Your task to perform on an android device: open app "PlayWell" (install if not already installed) and enter user name: "metric@gmail.com" and password: "bumblebee" Image 0: 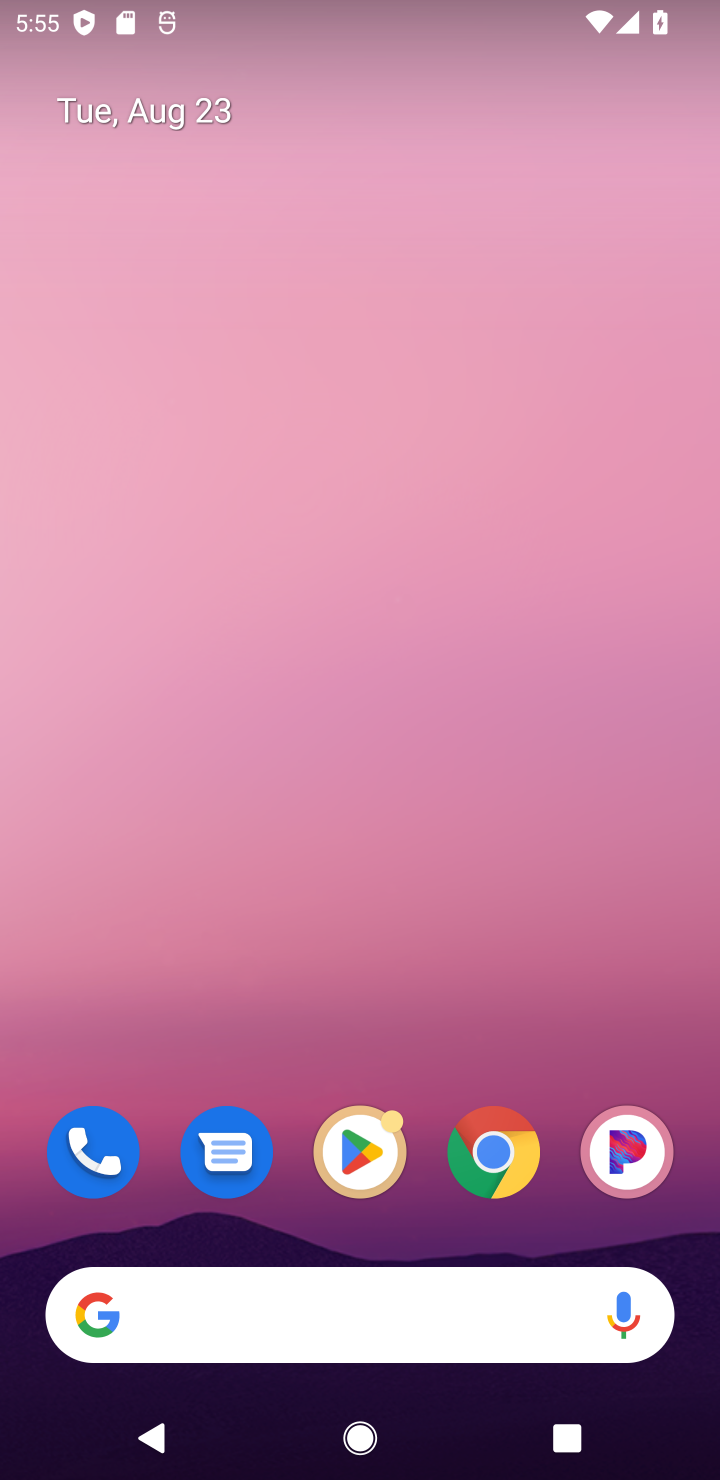
Step 0: click (367, 1132)
Your task to perform on an android device: open app "PlayWell" (install if not already installed) and enter user name: "metric@gmail.com" and password: "bumblebee" Image 1: 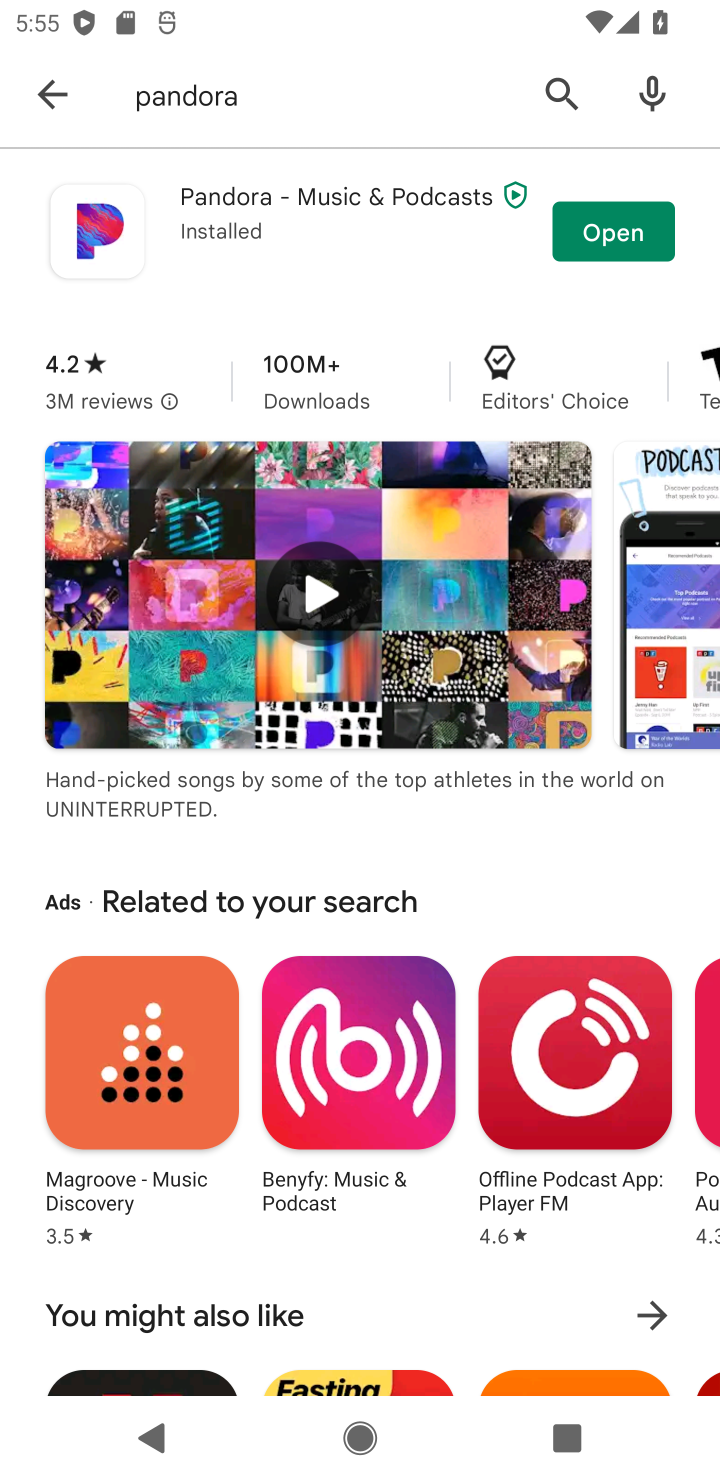
Step 1: click (574, 86)
Your task to perform on an android device: open app "PlayWell" (install if not already installed) and enter user name: "metric@gmail.com" and password: "bumblebee" Image 2: 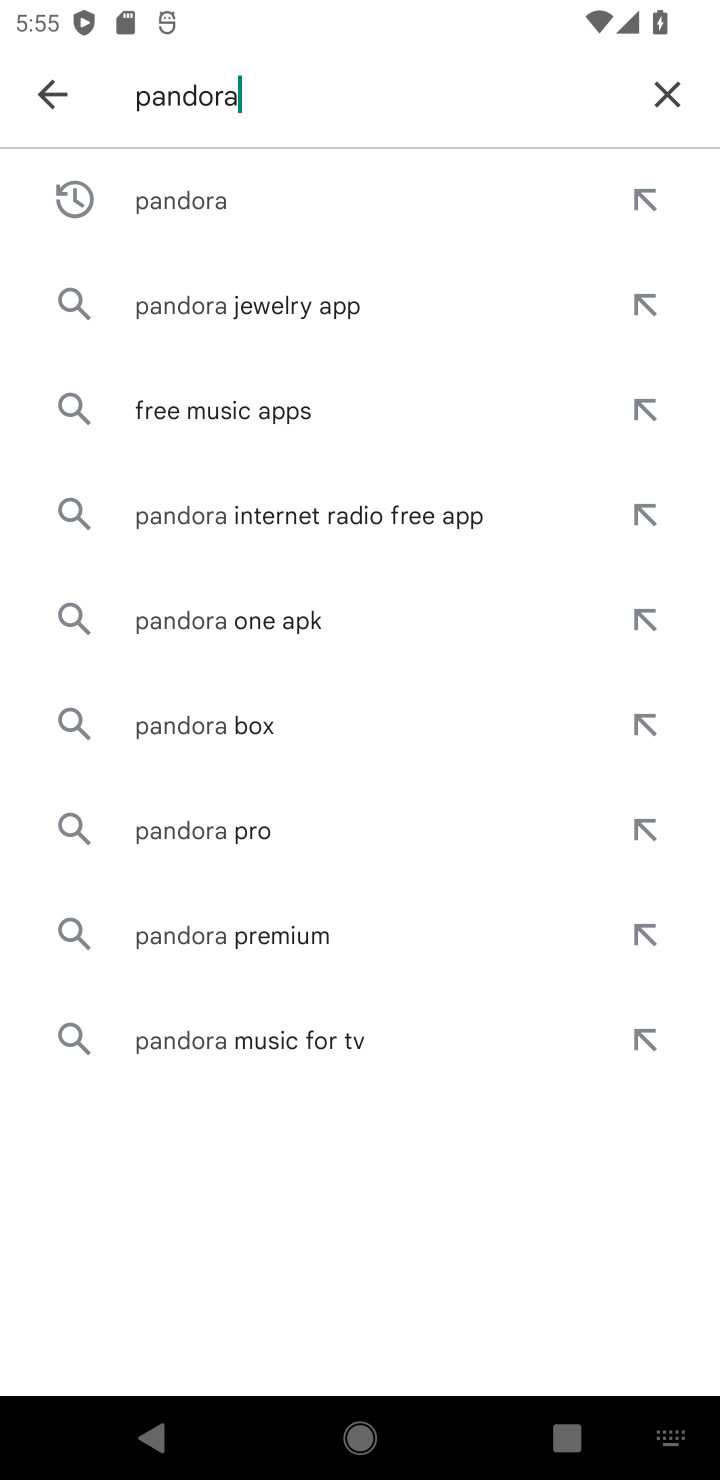
Step 2: click (673, 97)
Your task to perform on an android device: open app "PlayWell" (install if not already installed) and enter user name: "metric@gmail.com" and password: "bumblebee" Image 3: 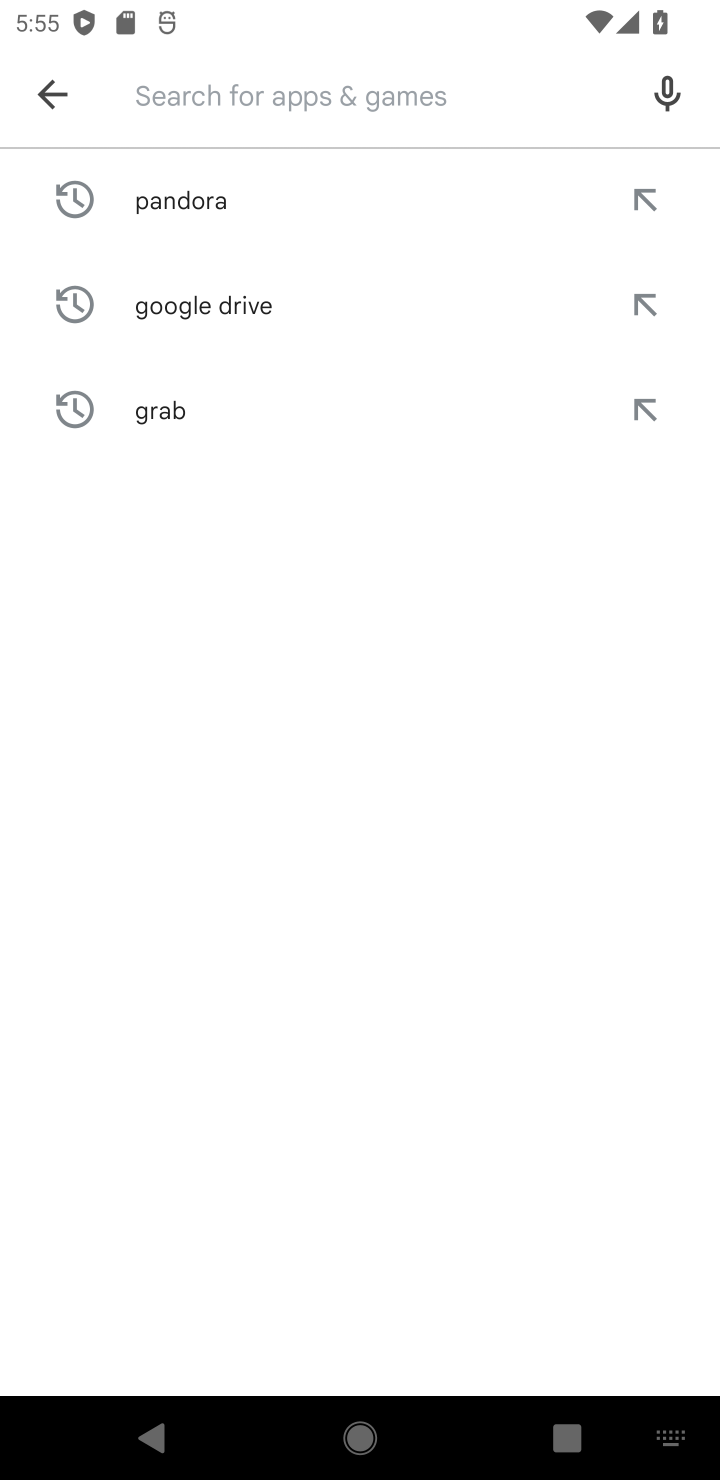
Step 3: type "playwell"
Your task to perform on an android device: open app "PlayWell" (install if not already installed) and enter user name: "metric@gmail.com" and password: "bumblebee" Image 4: 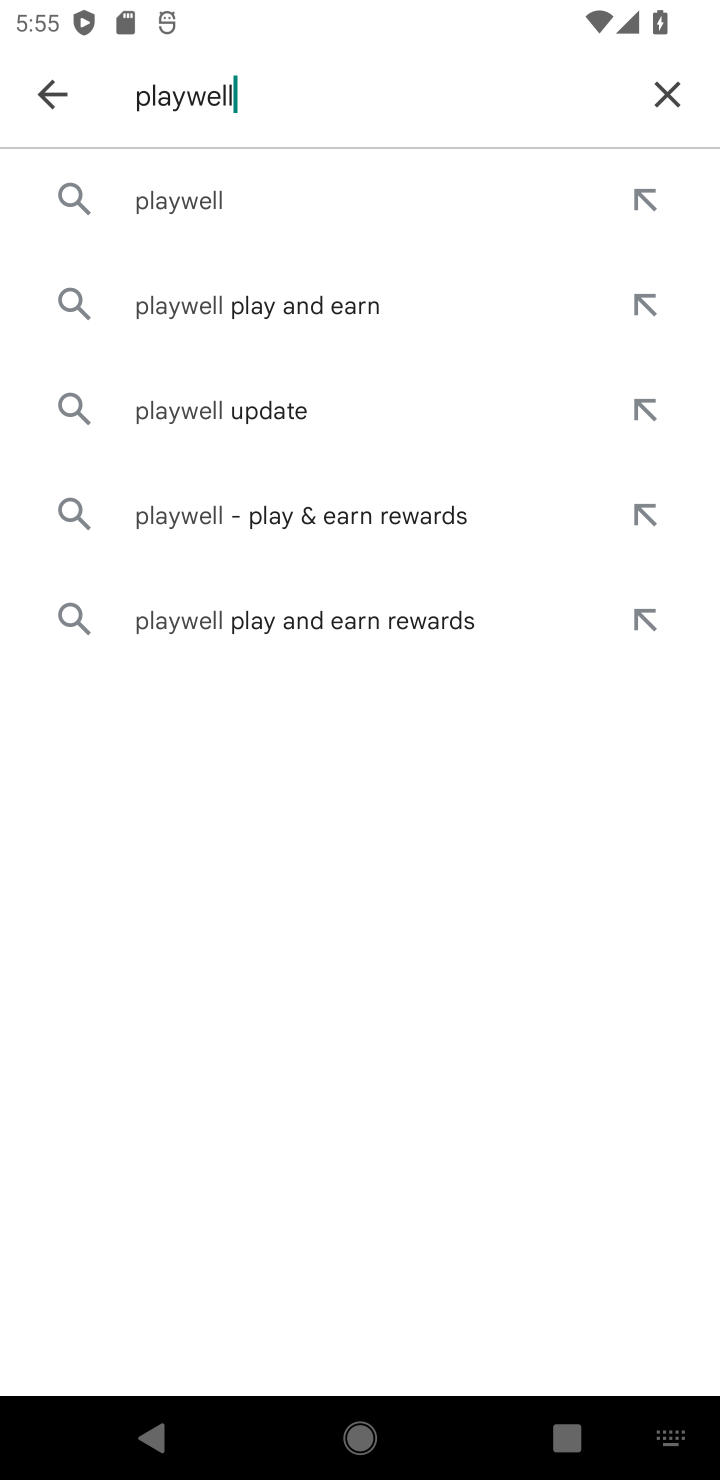
Step 4: click (228, 222)
Your task to perform on an android device: open app "PlayWell" (install if not already installed) and enter user name: "metric@gmail.com" and password: "bumblebee" Image 5: 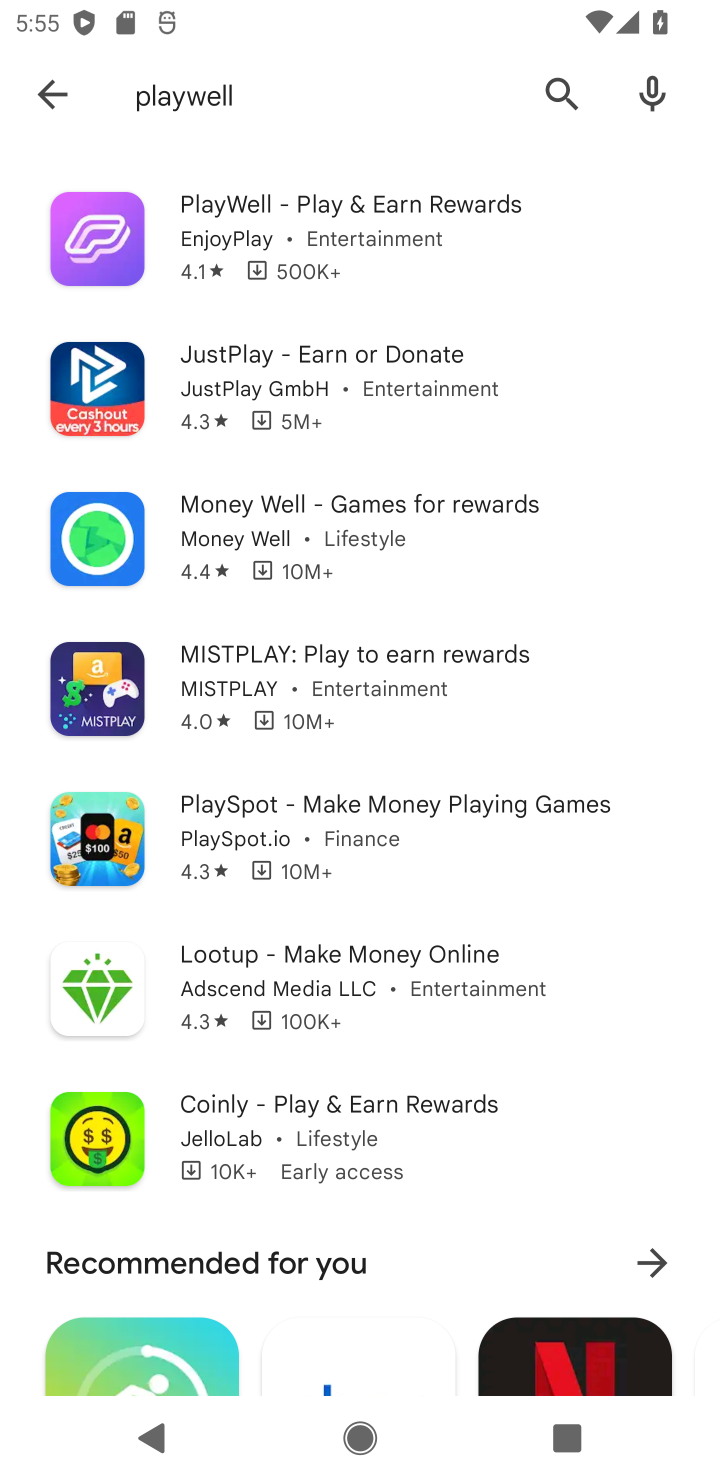
Step 5: click (325, 221)
Your task to perform on an android device: open app "PlayWell" (install if not already installed) and enter user name: "metric@gmail.com" and password: "bumblebee" Image 6: 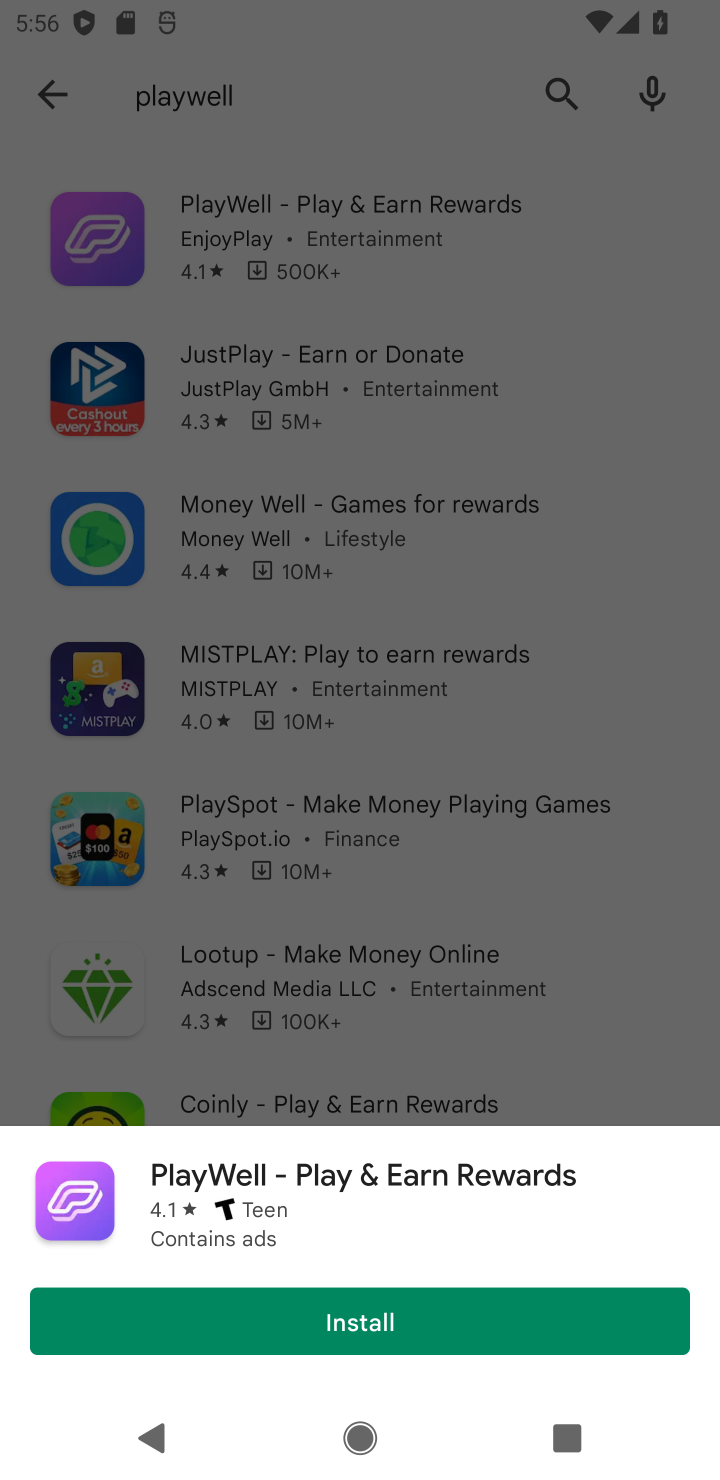
Step 6: click (325, 221)
Your task to perform on an android device: open app "PlayWell" (install if not already installed) and enter user name: "metric@gmail.com" and password: "bumblebee" Image 7: 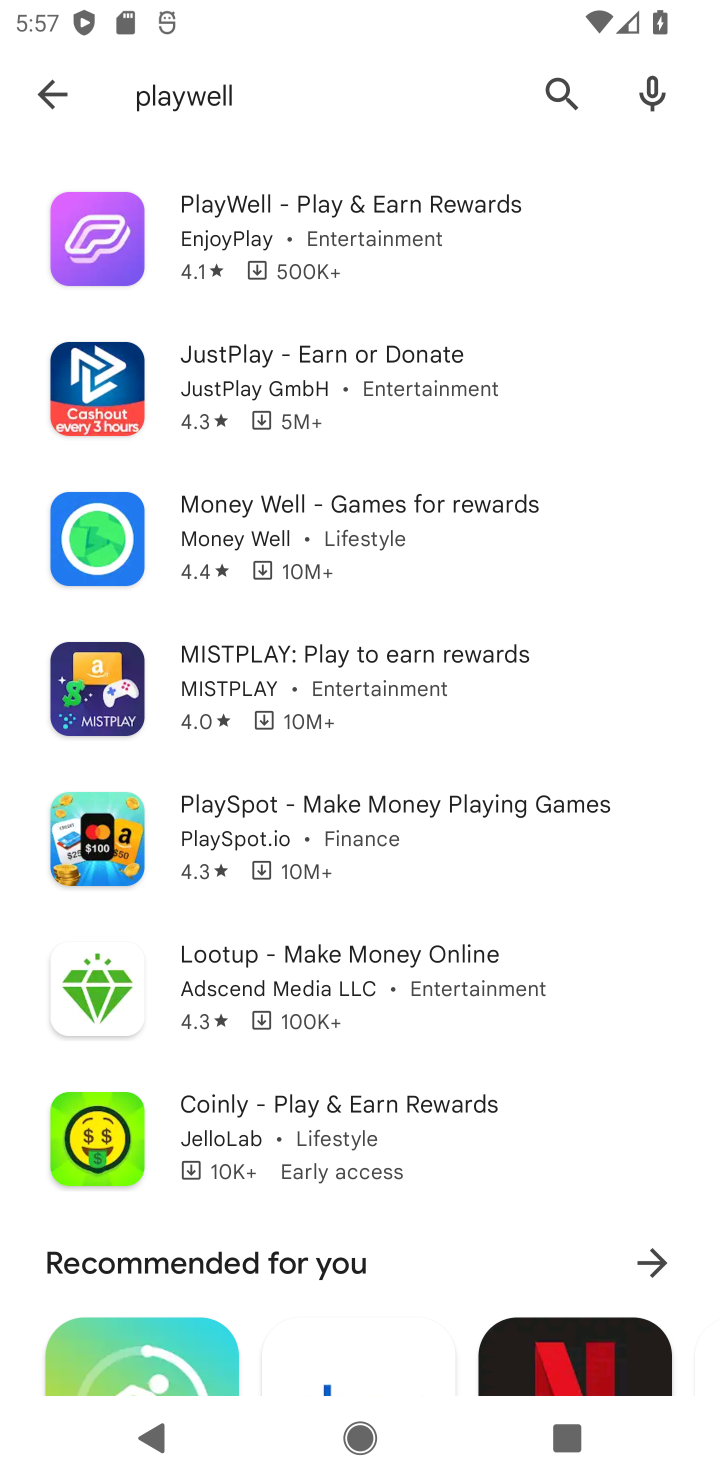
Step 7: click (346, 218)
Your task to perform on an android device: open app "PlayWell" (install if not already installed) and enter user name: "metric@gmail.com" and password: "bumblebee" Image 8: 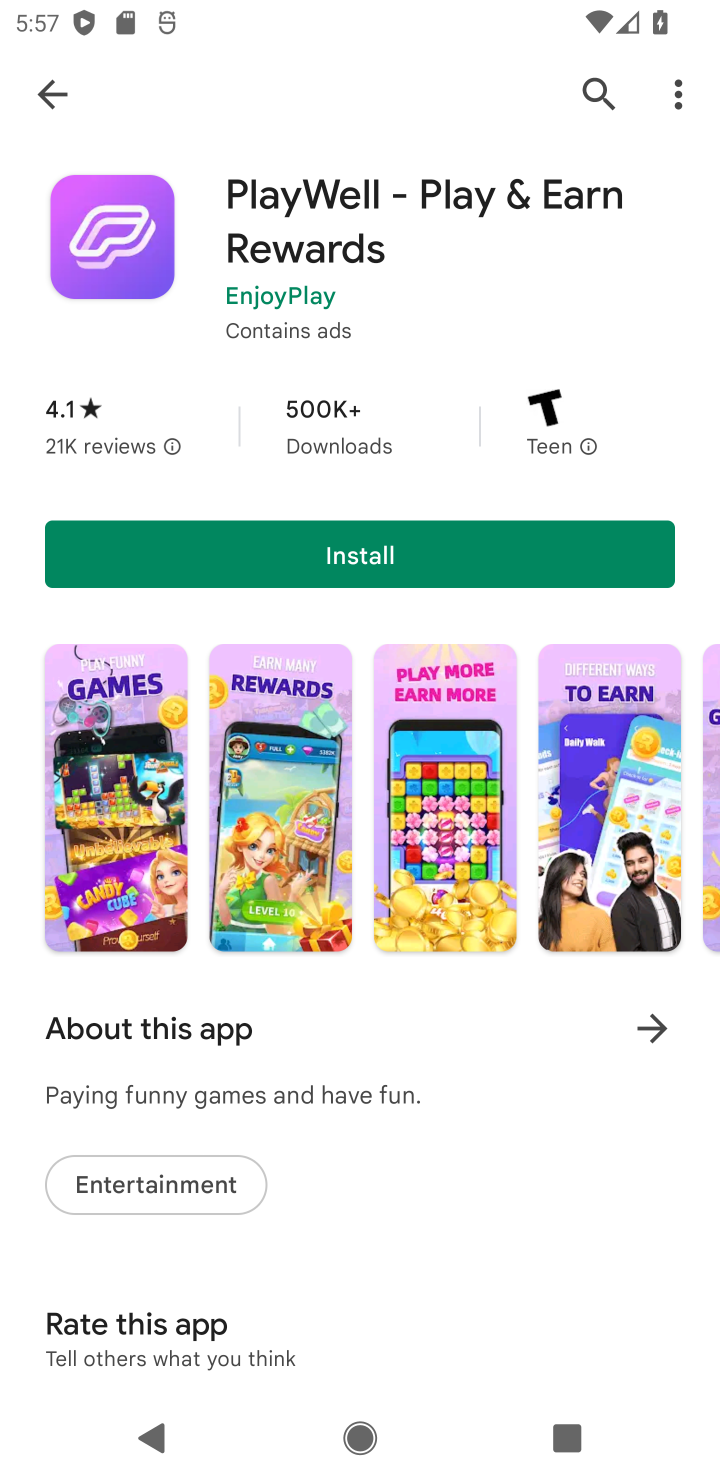
Step 8: click (368, 564)
Your task to perform on an android device: open app "PlayWell" (install if not already installed) and enter user name: "metric@gmail.com" and password: "bumblebee" Image 9: 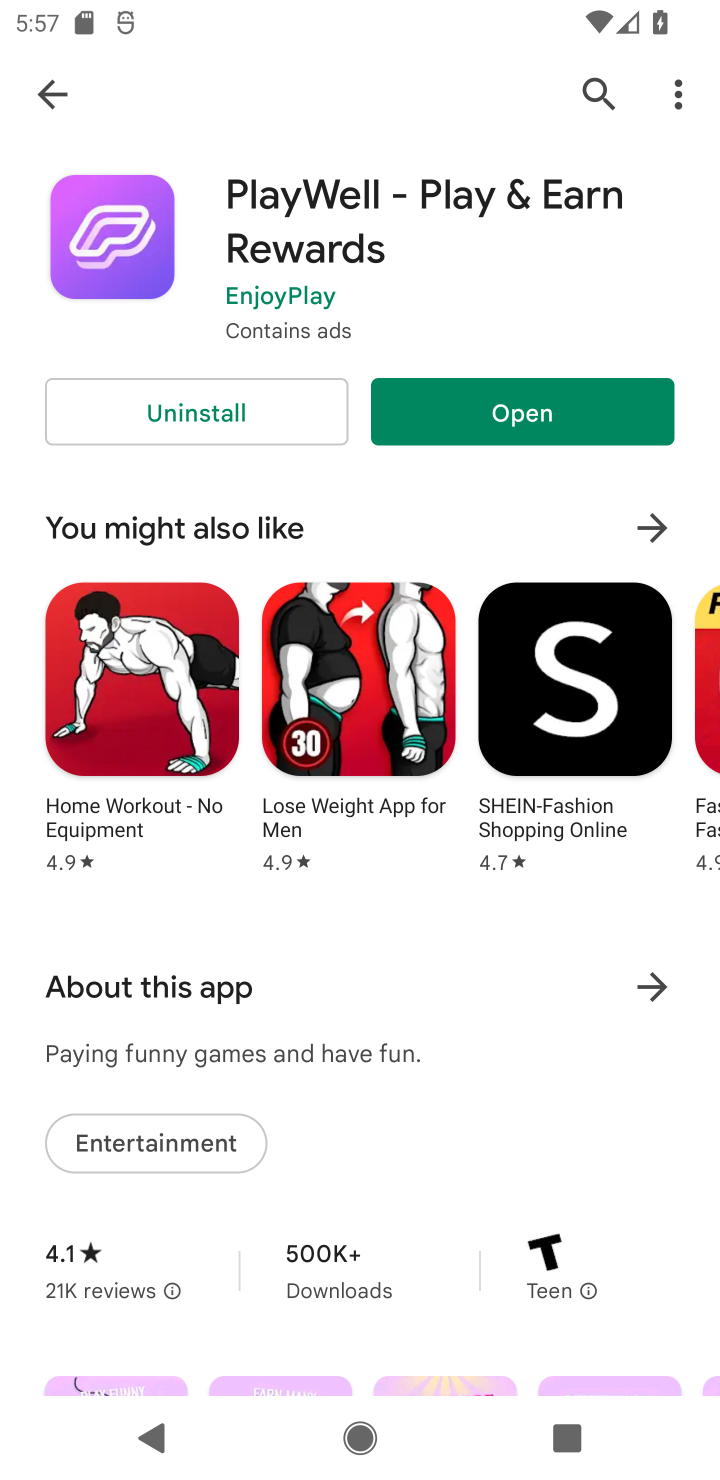
Step 9: click (595, 392)
Your task to perform on an android device: open app "PlayWell" (install if not already installed) and enter user name: "metric@gmail.com" and password: "bumblebee" Image 10: 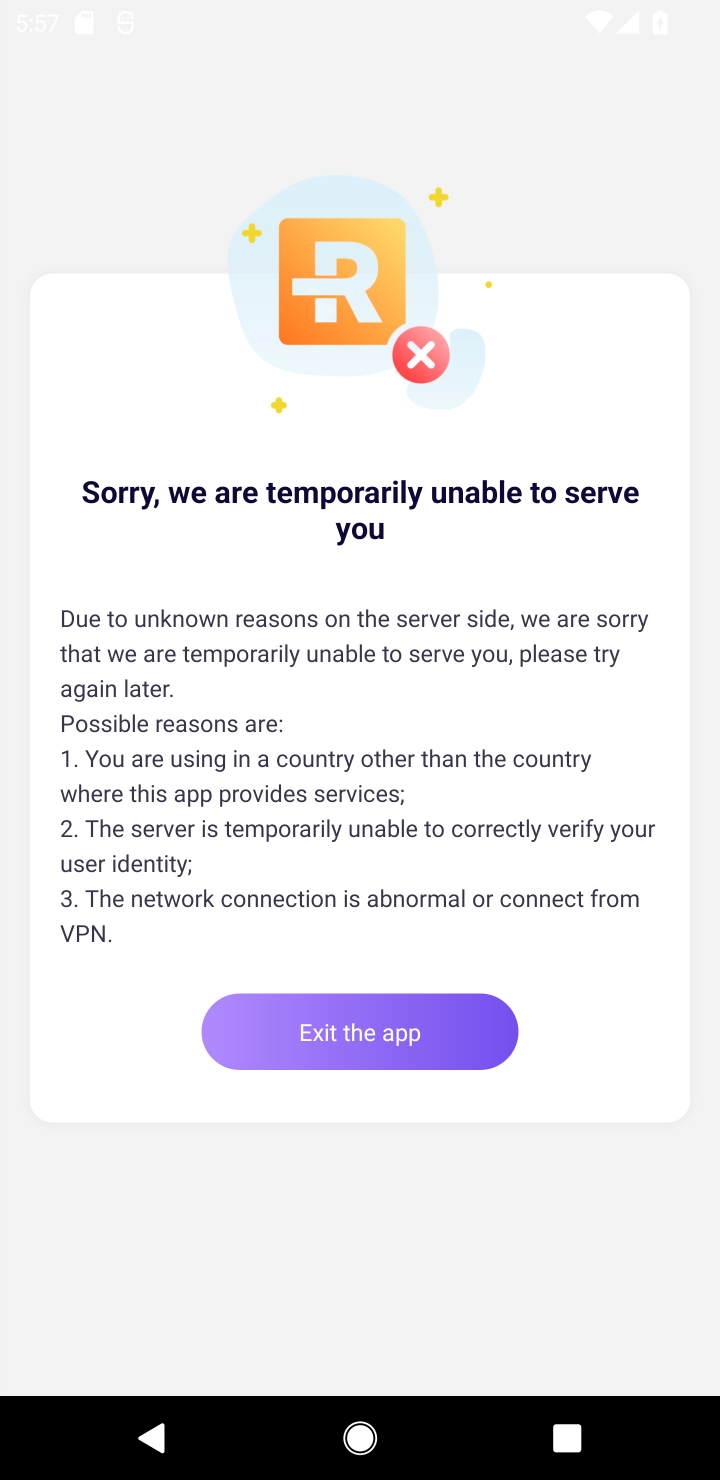
Step 10: task complete